Your task to perform on an android device: check out phone information Image 0: 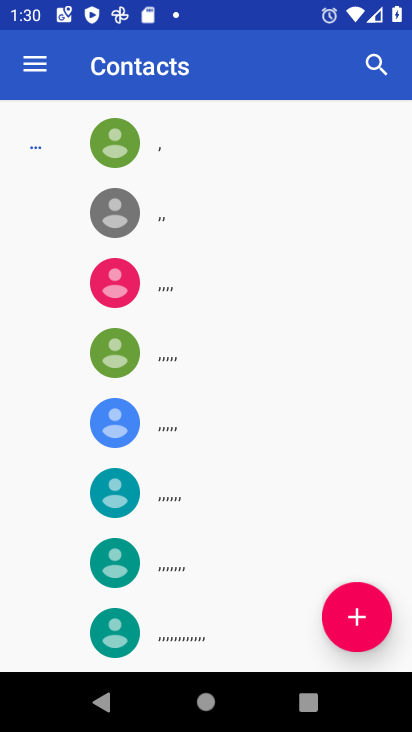
Step 0: press home button
Your task to perform on an android device: check out phone information Image 1: 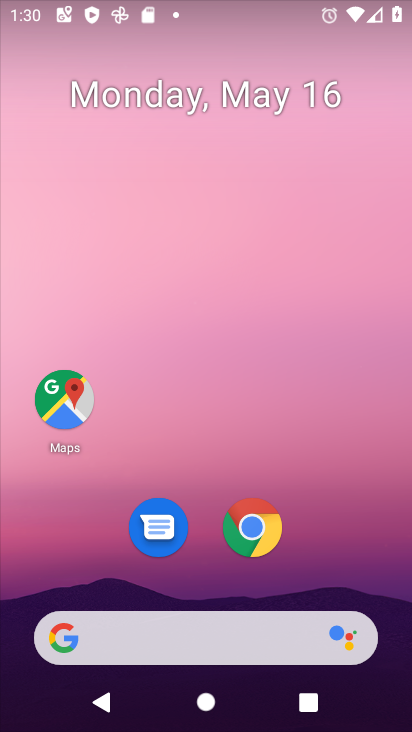
Step 1: drag from (344, 555) to (359, 76)
Your task to perform on an android device: check out phone information Image 2: 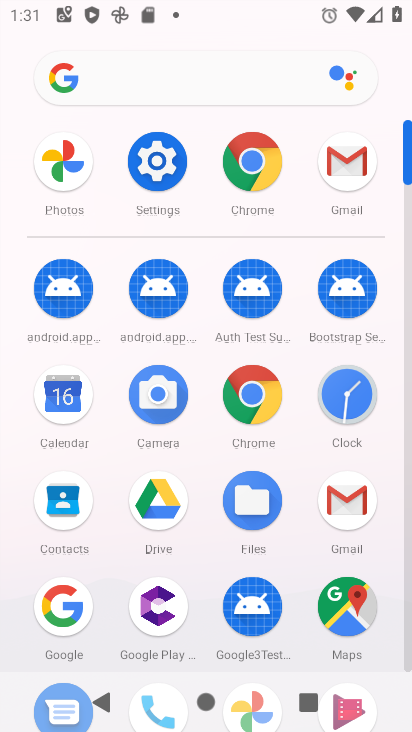
Step 2: click (176, 190)
Your task to perform on an android device: check out phone information Image 3: 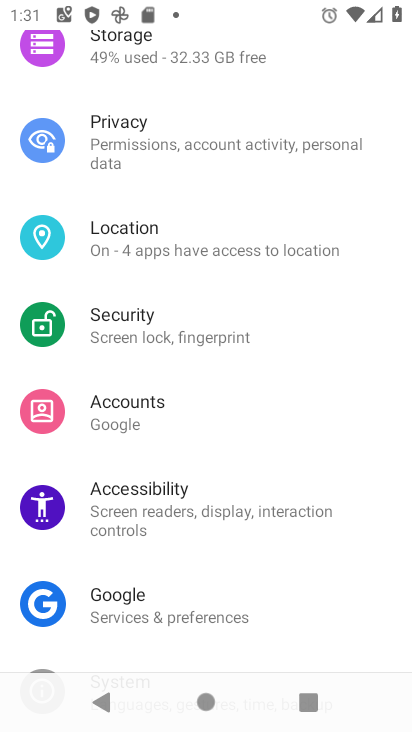
Step 3: drag from (150, 585) to (241, 78)
Your task to perform on an android device: check out phone information Image 4: 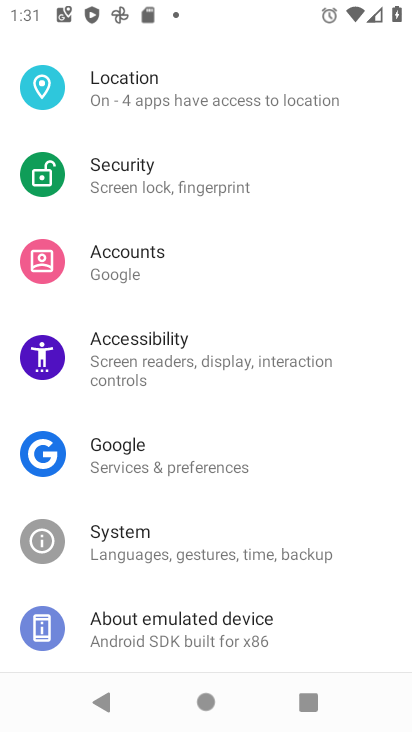
Step 4: drag from (213, 571) to (310, 160)
Your task to perform on an android device: check out phone information Image 5: 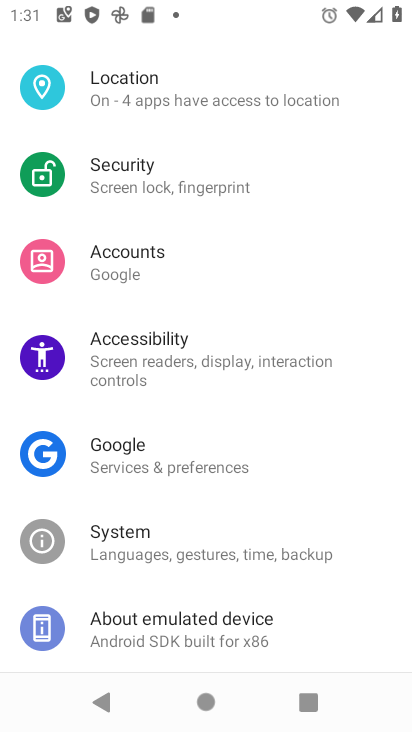
Step 5: click (246, 532)
Your task to perform on an android device: check out phone information Image 6: 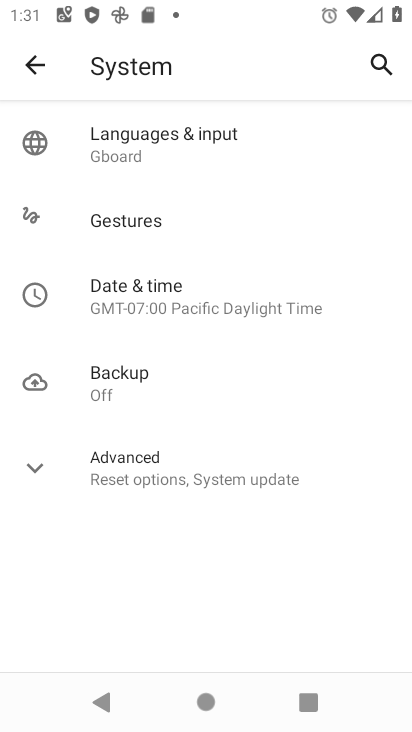
Step 6: click (38, 72)
Your task to perform on an android device: check out phone information Image 7: 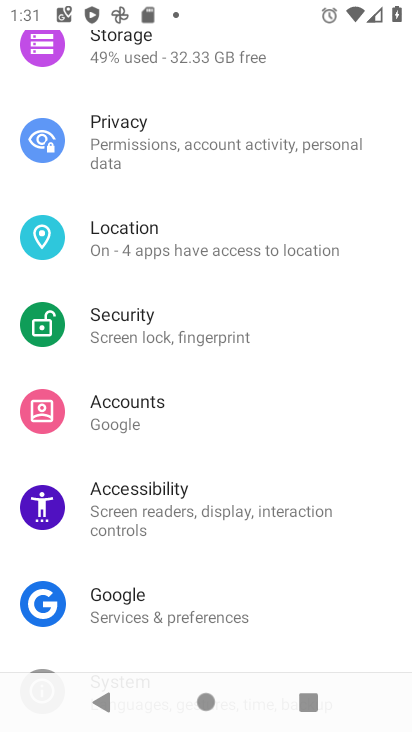
Step 7: drag from (202, 596) to (295, 215)
Your task to perform on an android device: check out phone information Image 8: 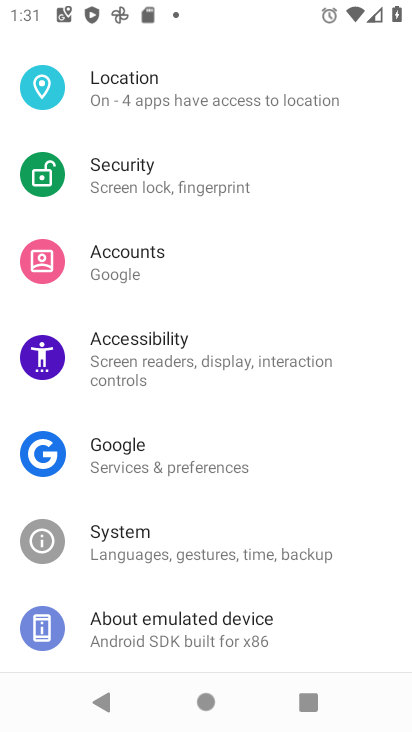
Step 8: click (195, 629)
Your task to perform on an android device: check out phone information Image 9: 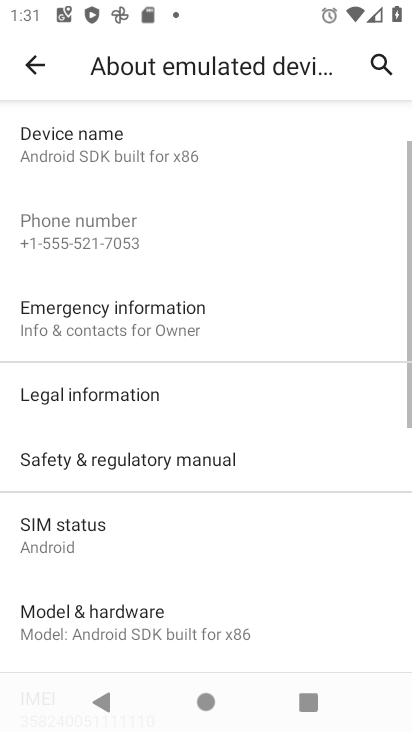
Step 9: task complete